Your task to perform on an android device: turn off sleep mode Image 0: 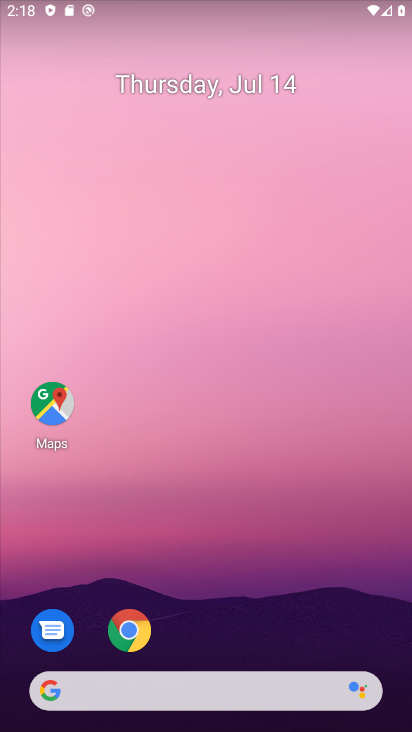
Step 0: press home button
Your task to perform on an android device: turn off sleep mode Image 1: 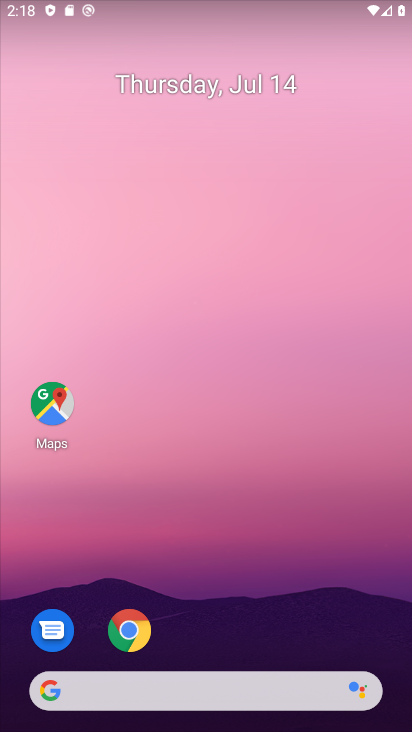
Step 1: drag from (207, 657) to (248, 11)
Your task to perform on an android device: turn off sleep mode Image 2: 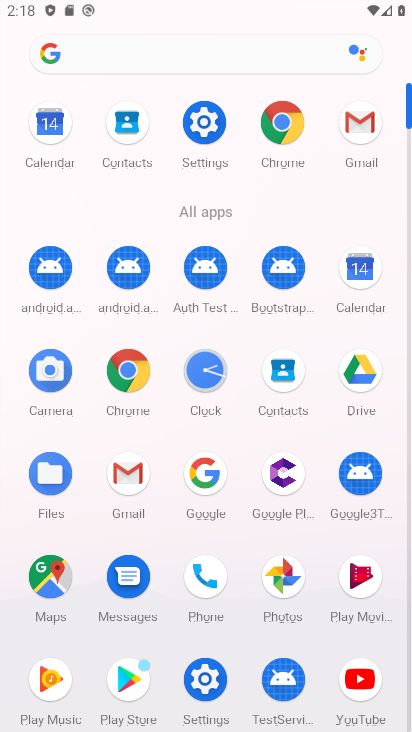
Step 2: click (199, 117)
Your task to perform on an android device: turn off sleep mode Image 3: 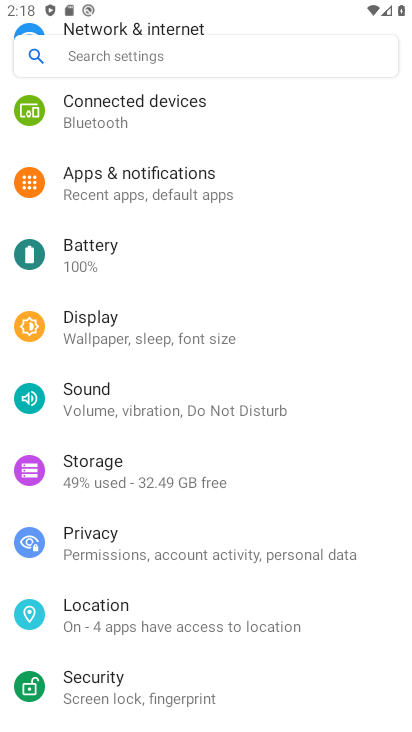
Step 3: click (137, 319)
Your task to perform on an android device: turn off sleep mode Image 4: 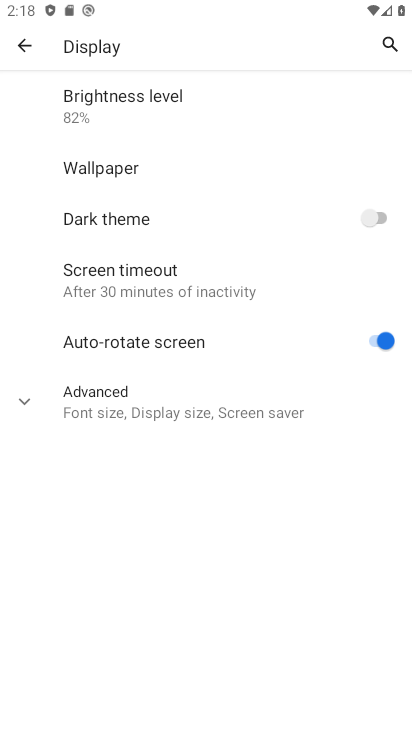
Step 4: click (33, 397)
Your task to perform on an android device: turn off sleep mode Image 5: 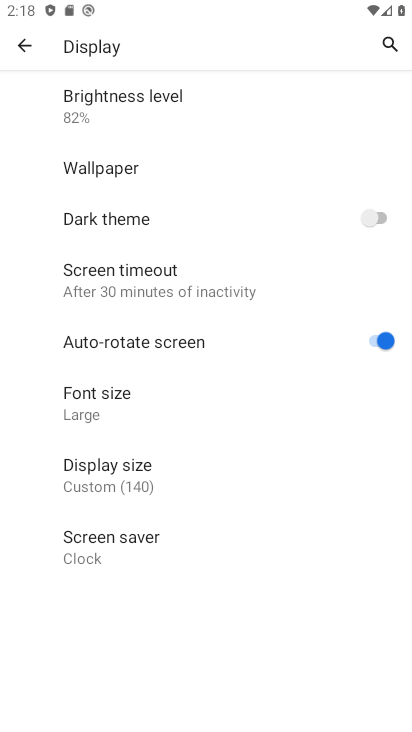
Step 5: task complete